Your task to perform on an android device: What's the weather going to be this weekend? Image 0: 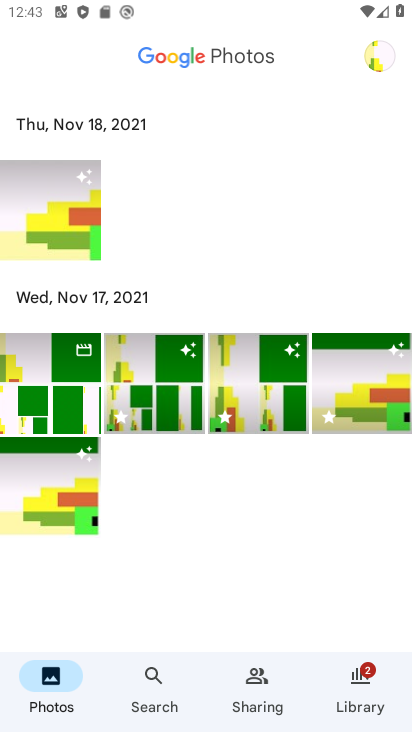
Step 0: press home button
Your task to perform on an android device: What's the weather going to be this weekend? Image 1: 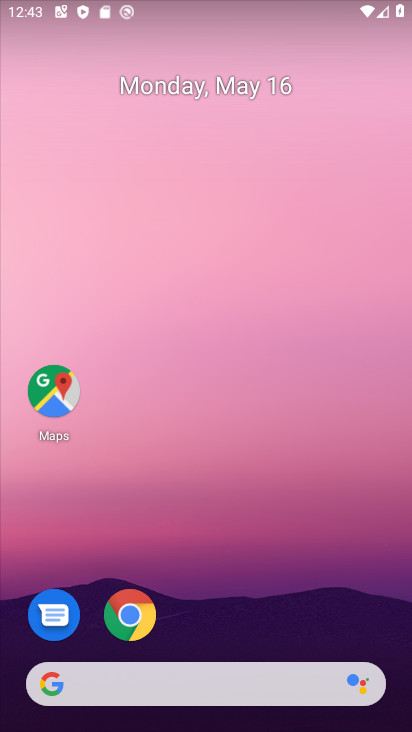
Step 1: drag from (227, 676) to (235, 91)
Your task to perform on an android device: What's the weather going to be this weekend? Image 2: 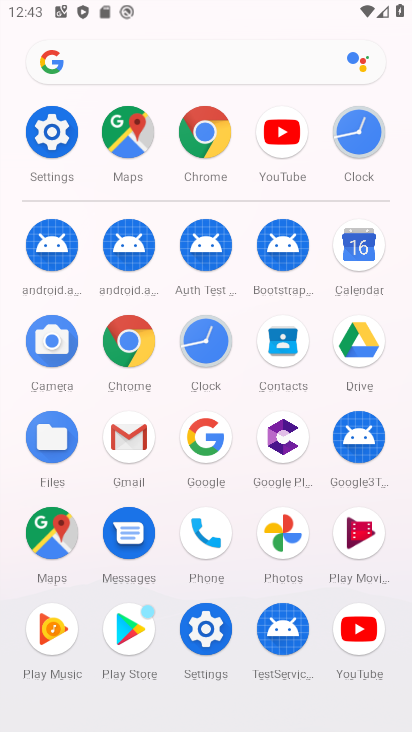
Step 2: click (131, 350)
Your task to perform on an android device: What's the weather going to be this weekend? Image 3: 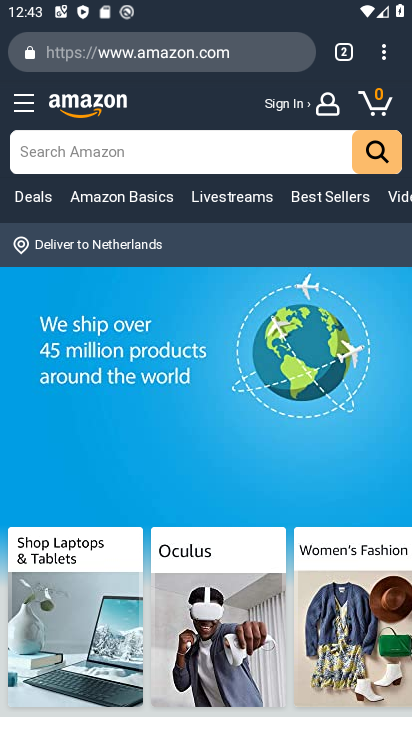
Step 3: press back button
Your task to perform on an android device: What's the weather going to be this weekend? Image 4: 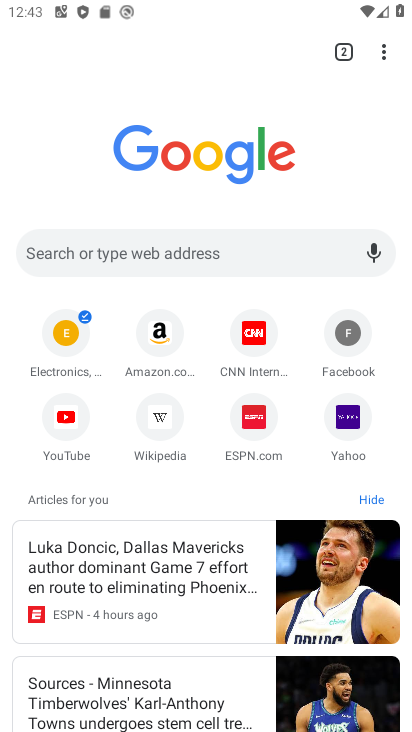
Step 4: drag from (13, 250) to (402, 235)
Your task to perform on an android device: What's the weather going to be this weekend? Image 5: 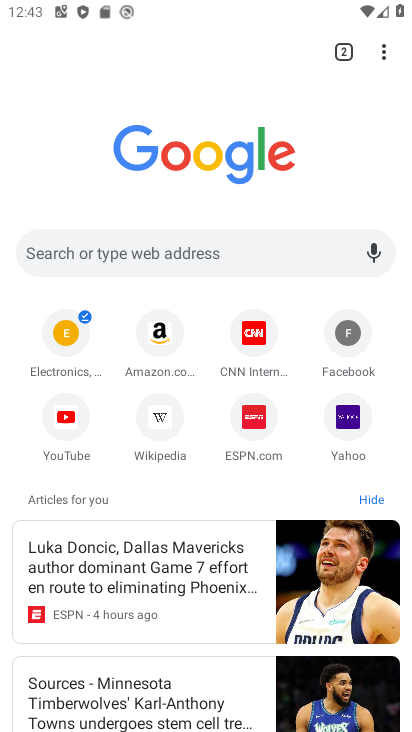
Step 5: press home button
Your task to perform on an android device: What's the weather going to be this weekend? Image 6: 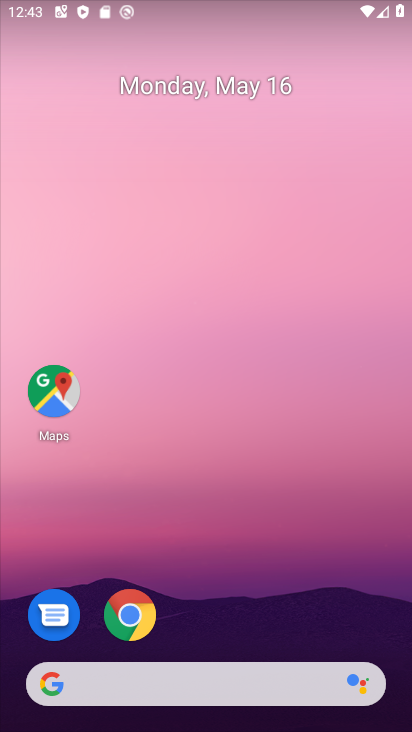
Step 6: drag from (288, 288) to (407, 345)
Your task to perform on an android device: What's the weather going to be this weekend? Image 7: 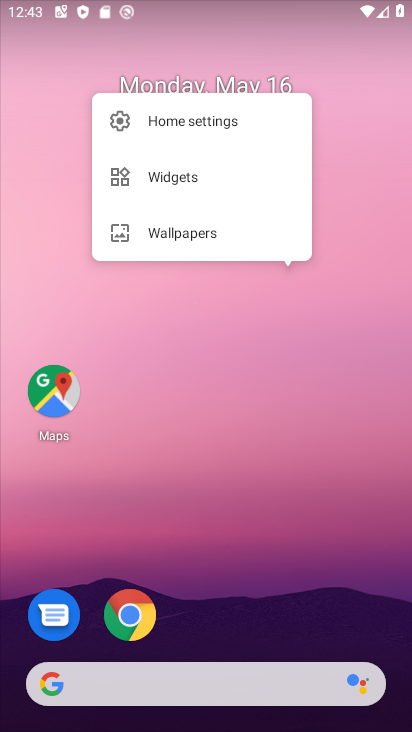
Step 7: click (149, 340)
Your task to perform on an android device: What's the weather going to be this weekend? Image 8: 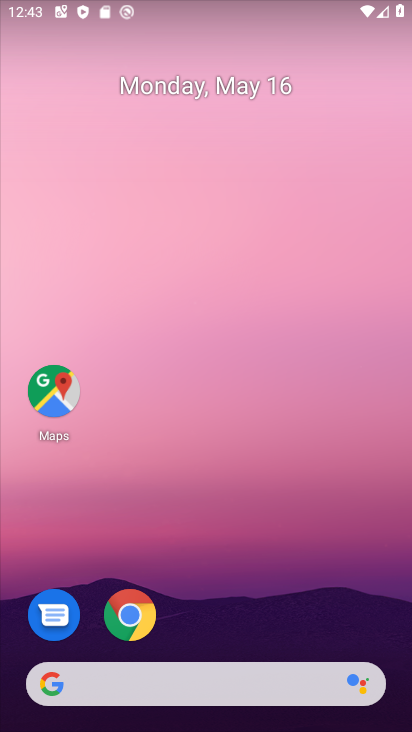
Step 8: drag from (131, 341) to (175, 342)
Your task to perform on an android device: What's the weather going to be this weekend? Image 9: 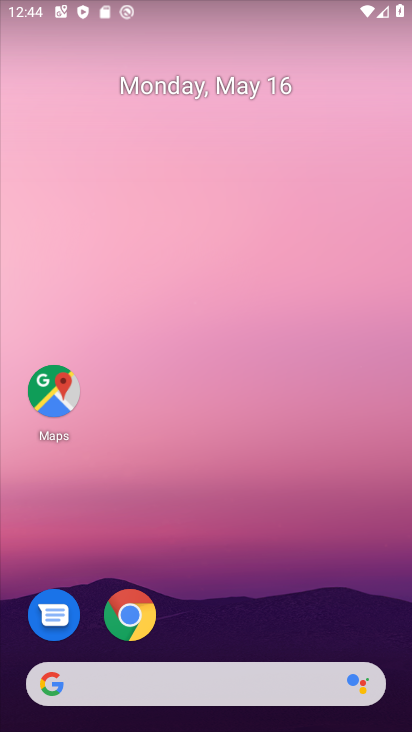
Step 9: click (175, 342)
Your task to perform on an android device: What's the weather going to be this weekend? Image 10: 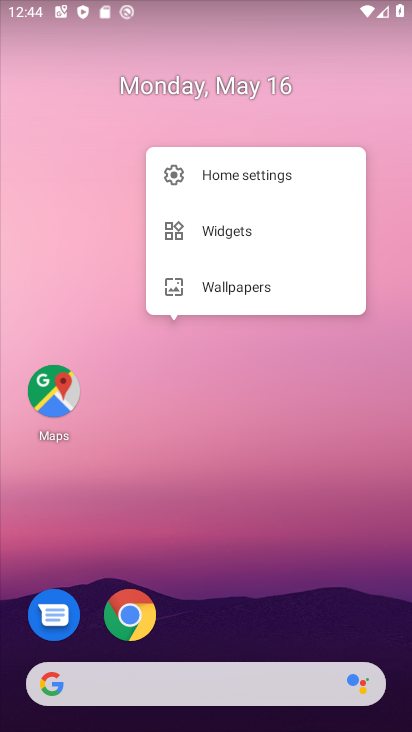
Step 10: click (322, 483)
Your task to perform on an android device: What's the weather going to be this weekend? Image 11: 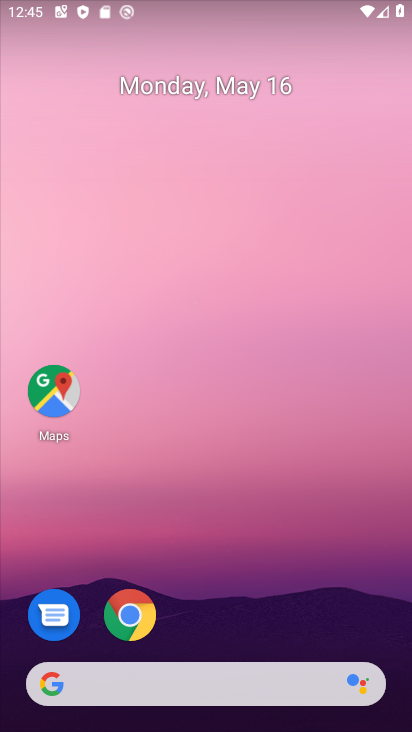
Step 11: click (79, 176)
Your task to perform on an android device: What's the weather going to be this weekend? Image 12: 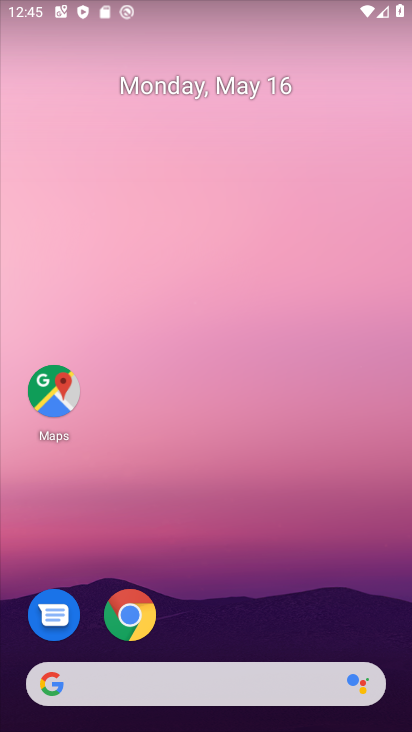
Step 12: drag from (39, 251) to (411, 246)
Your task to perform on an android device: What's the weather going to be this weekend? Image 13: 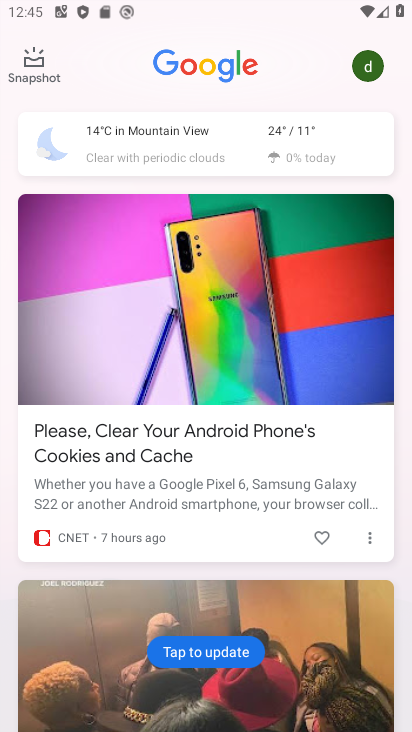
Step 13: click (175, 140)
Your task to perform on an android device: What's the weather going to be this weekend? Image 14: 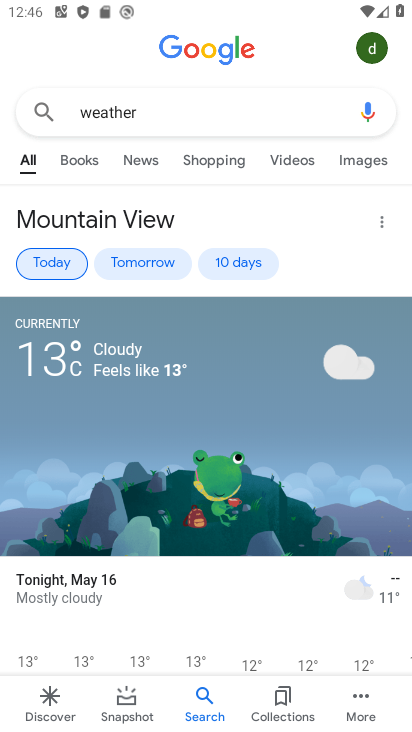
Step 14: press home button
Your task to perform on an android device: What's the weather going to be this weekend? Image 15: 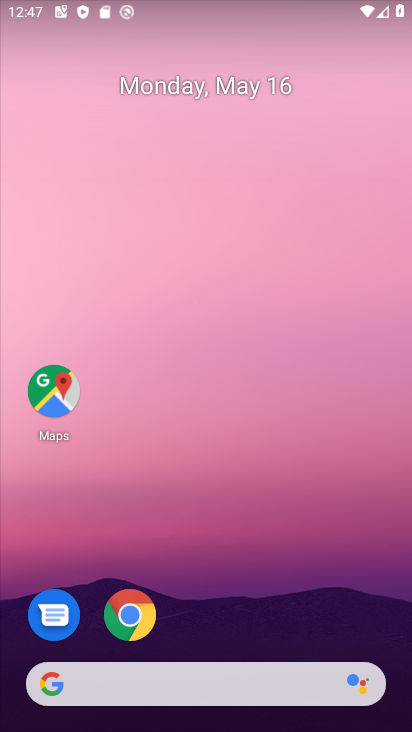
Step 15: drag from (45, 455) to (308, 326)
Your task to perform on an android device: What's the weather going to be this weekend? Image 16: 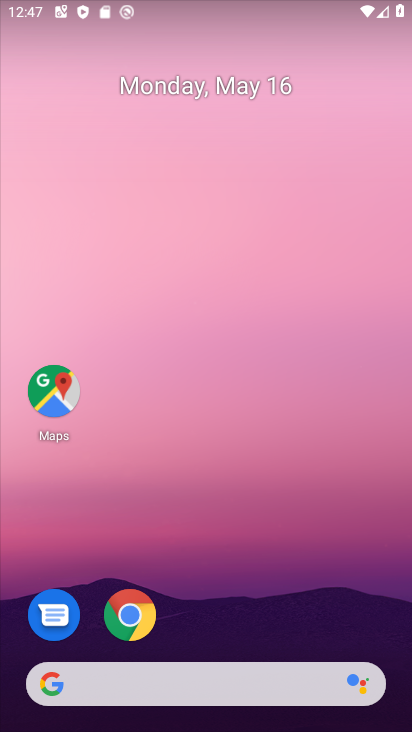
Step 16: drag from (24, 300) to (411, 83)
Your task to perform on an android device: What's the weather going to be this weekend? Image 17: 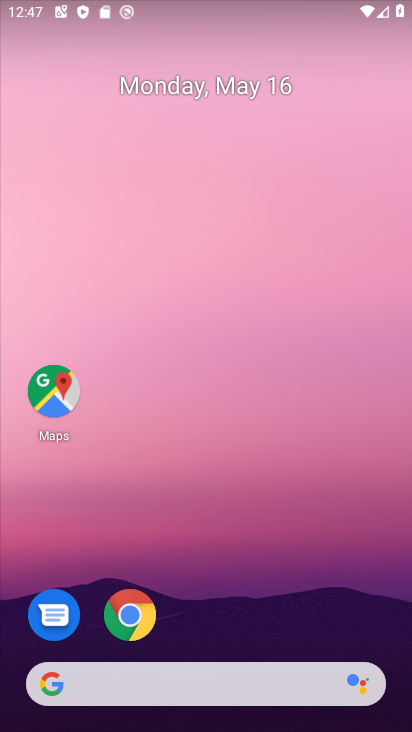
Step 17: click (225, 249)
Your task to perform on an android device: What's the weather going to be this weekend? Image 18: 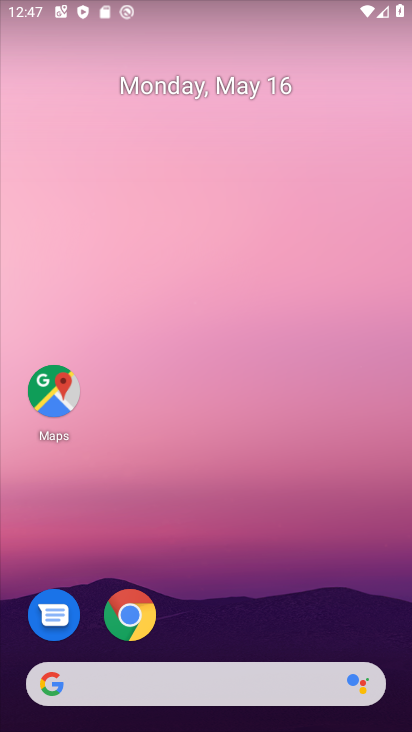
Step 18: drag from (80, 297) to (410, 316)
Your task to perform on an android device: What's the weather going to be this weekend? Image 19: 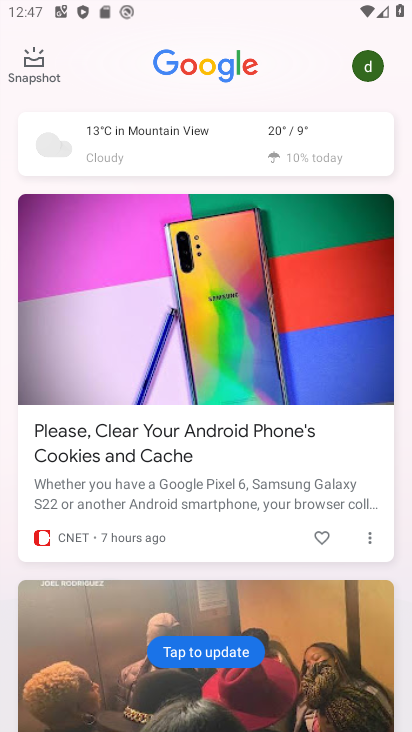
Step 19: click (151, 128)
Your task to perform on an android device: What's the weather going to be this weekend? Image 20: 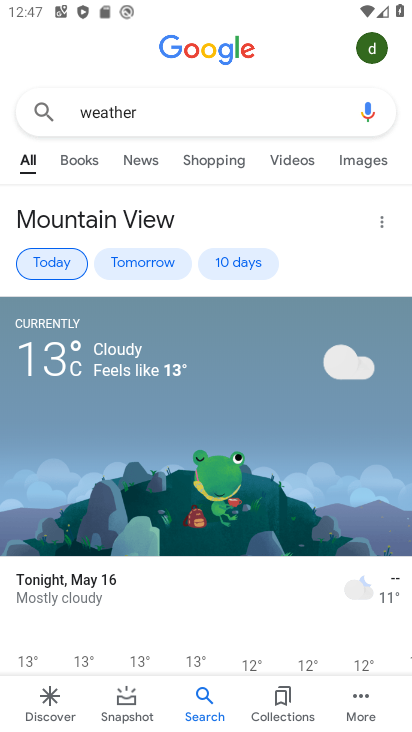
Step 20: task complete